Your task to perform on an android device: turn on improve location accuracy Image 0: 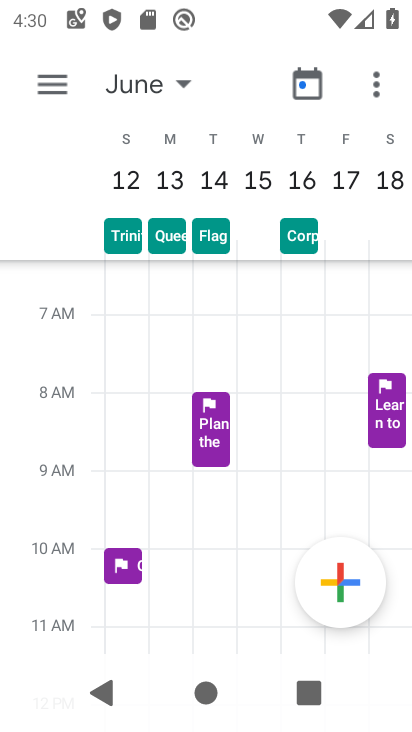
Step 0: press home button
Your task to perform on an android device: turn on improve location accuracy Image 1: 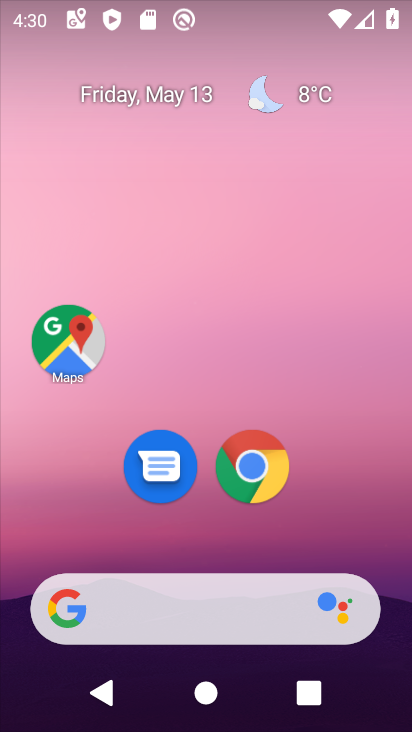
Step 1: drag from (384, 633) to (246, 96)
Your task to perform on an android device: turn on improve location accuracy Image 2: 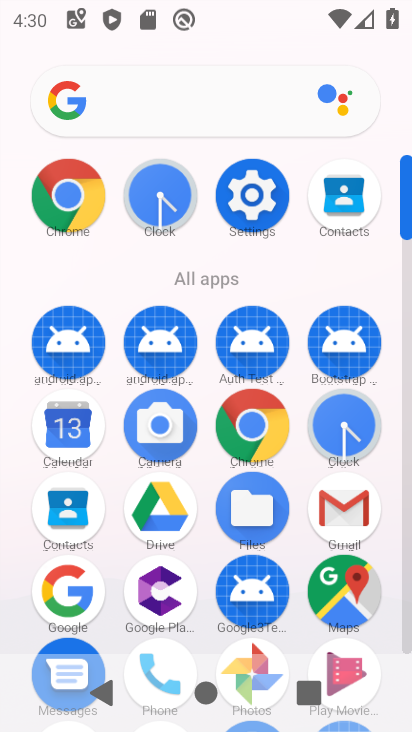
Step 2: click (409, 642)
Your task to perform on an android device: turn on improve location accuracy Image 3: 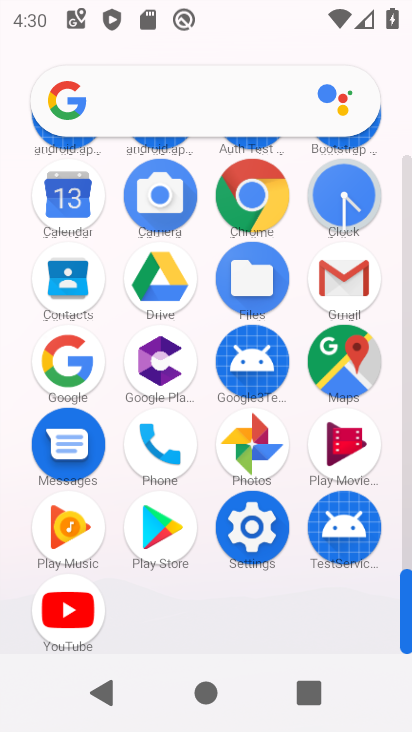
Step 3: click (247, 525)
Your task to perform on an android device: turn on improve location accuracy Image 4: 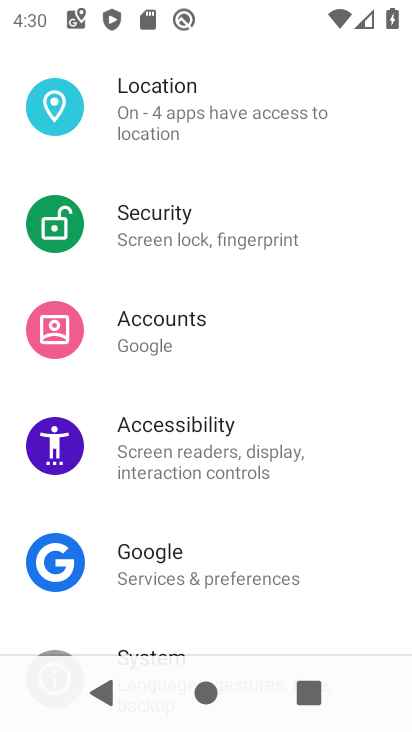
Step 4: click (132, 102)
Your task to perform on an android device: turn on improve location accuracy Image 5: 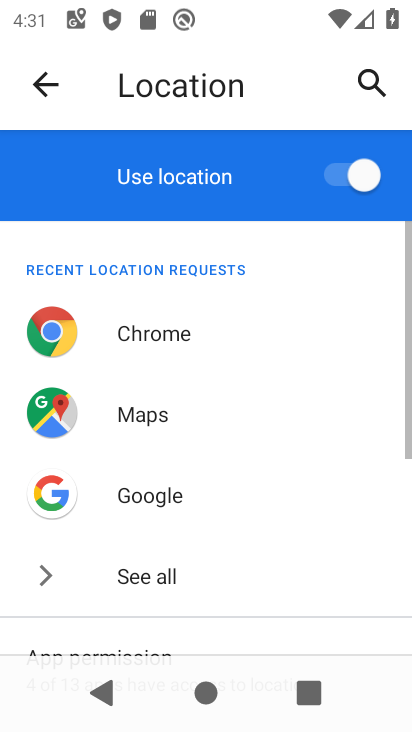
Step 5: drag from (244, 623) to (216, 111)
Your task to perform on an android device: turn on improve location accuracy Image 6: 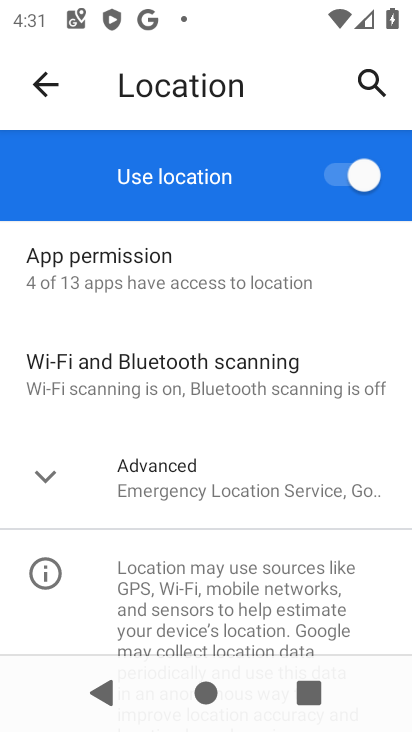
Step 6: click (49, 479)
Your task to perform on an android device: turn on improve location accuracy Image 7: 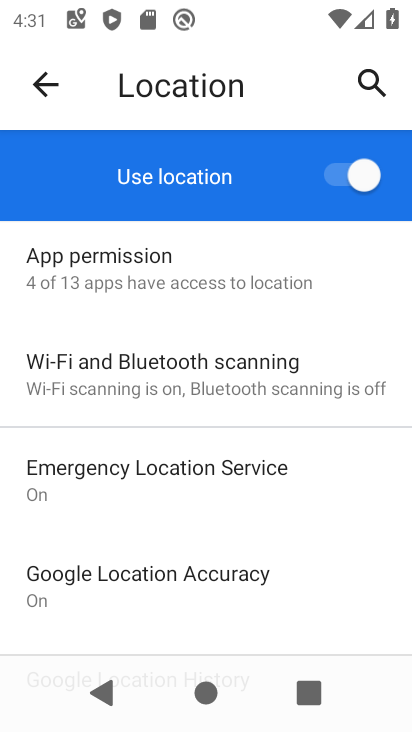
Step 7: click (146, 579)
Your task to perform on an android device: turn on improve location accuracy Image 8: 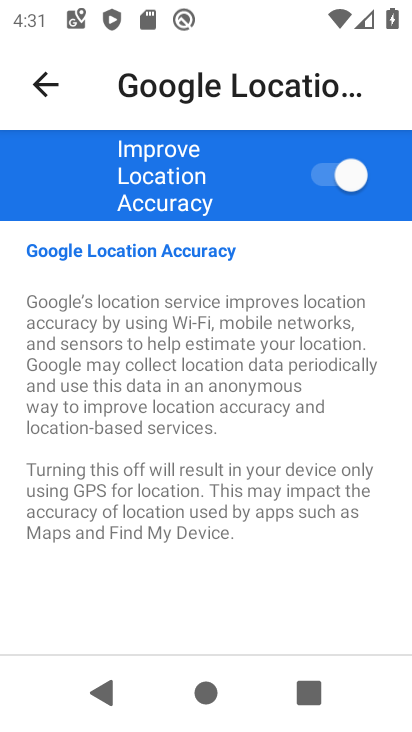
Step 8: task complete